Your task to perform on an android device: turn on the 12-hour format for clock Image 0: 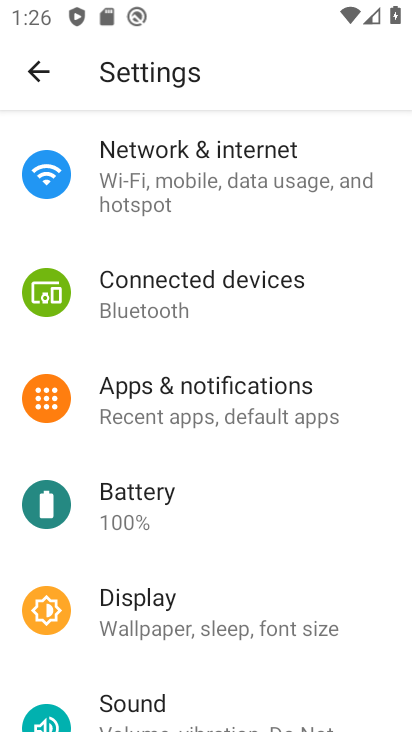
Step 0: task complete